Your task to perform on an android device: turn off airplane mode Image 0: 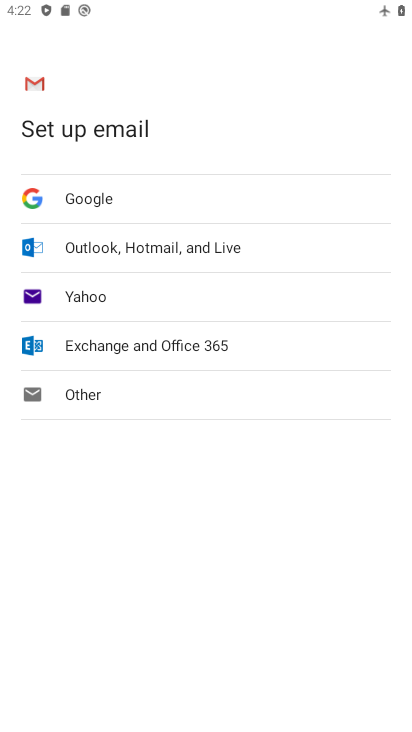
Step 0: press home button
Your task to perform on an android device: turn off airplane mode Image 1: 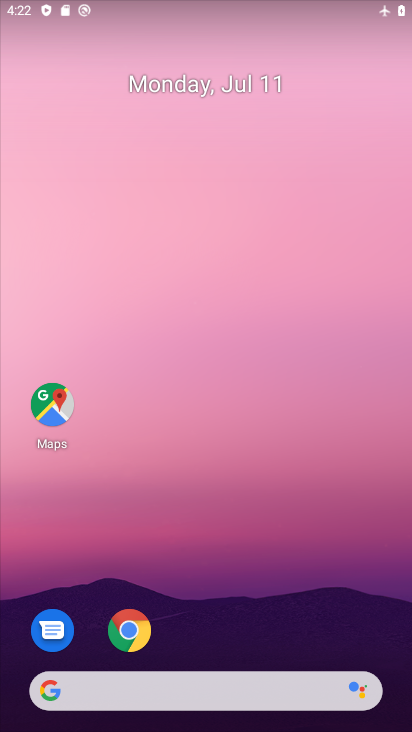
Step 1: drag from (221, 651) to (289, 22)
Your task to perform on an android device: turn off airplane mode Image 2: 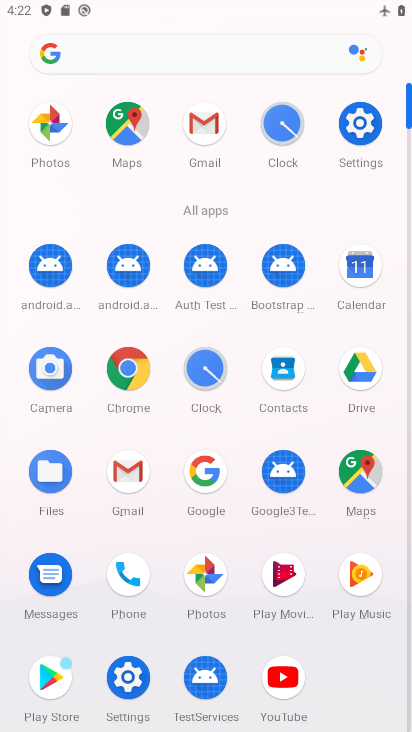
Step 2: click (129, 690)
Your task to perform on an android device: turn off airplane mode Image 3: 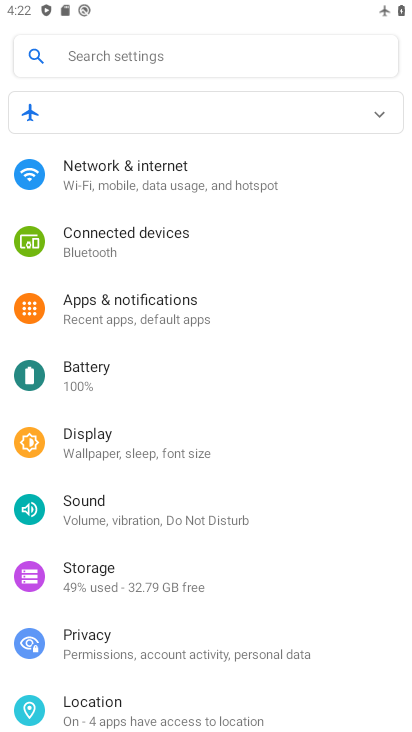
Step 3: click (191, 191)
Your task to perform on an android device: turn off airplane mode Image 4: 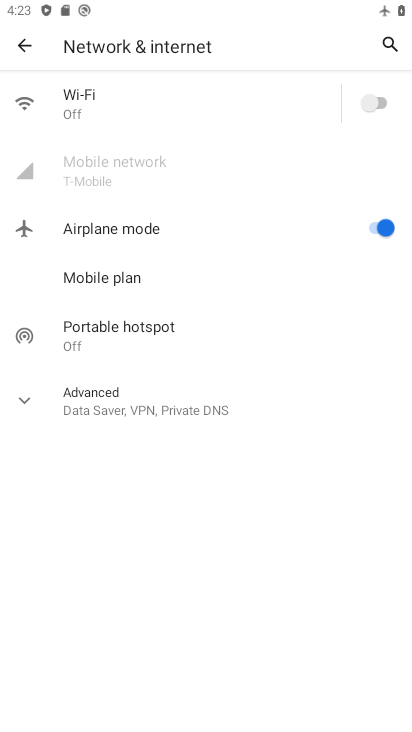
Step 4: click (378, 223)
Your task to perform on an android device: turn off airplane mode Image 5: 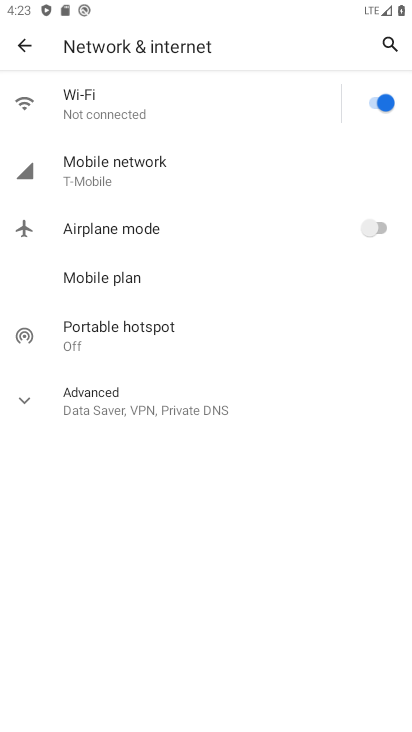
Step 5: task complete